Your task to perform on an android device: Go to Google maps Image 0: 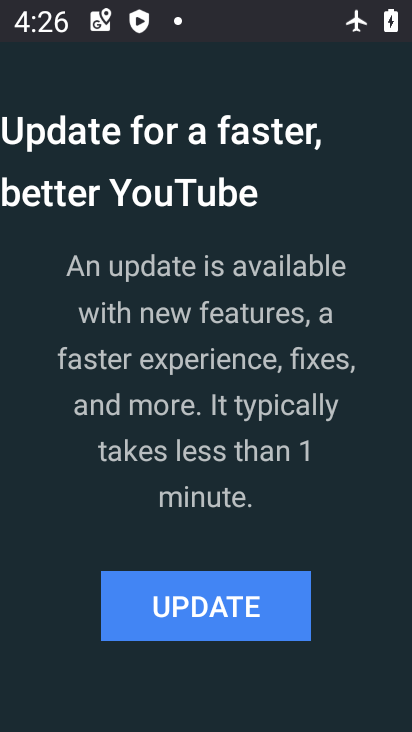
Step 0: press back button
Your task to perform on an android device: Go to Google maps Image 1: 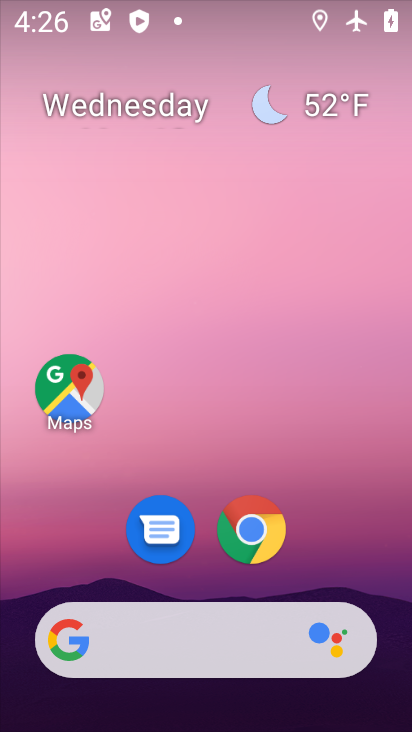
Step 1: click (73, 393)
Your task to perform on an android device: Go to Google maps Image 2: 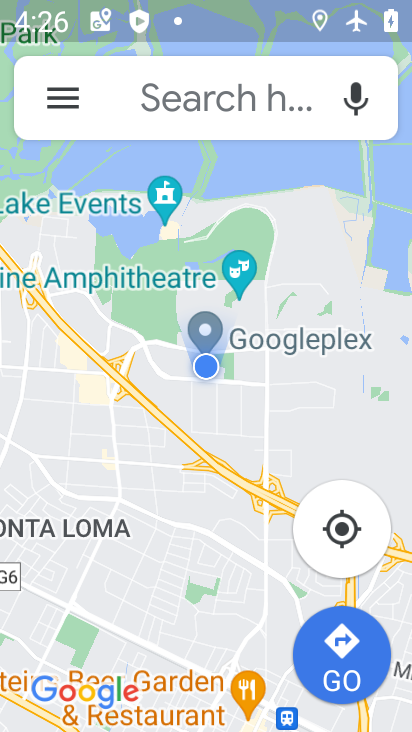
Step 2: task complete